Your task to perform on an android device: change text size in settings app Image 0: 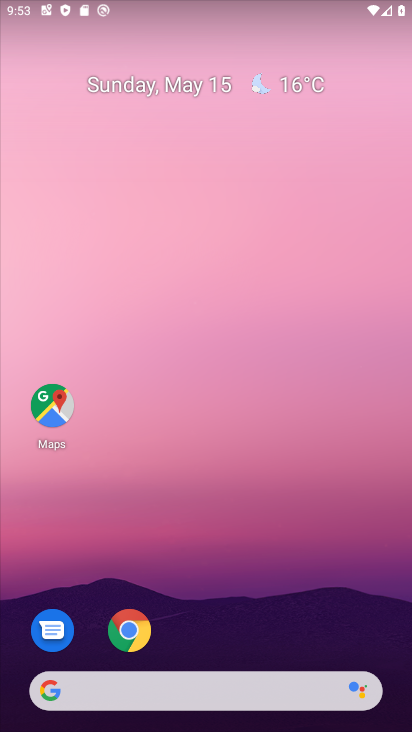
Step 0: drag from (227, 611) to (227, 141)
Your task to perform on an android device: change text size in settings app Image 1: 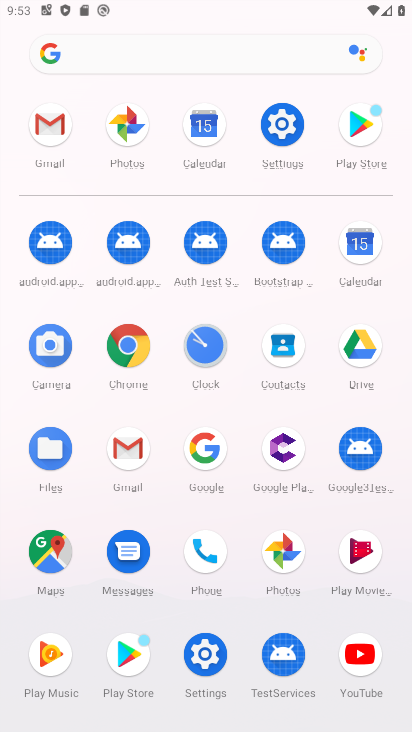
Step 1: click (275, 123)
Your task to perform on an android device: change text size in settings app Image 2: 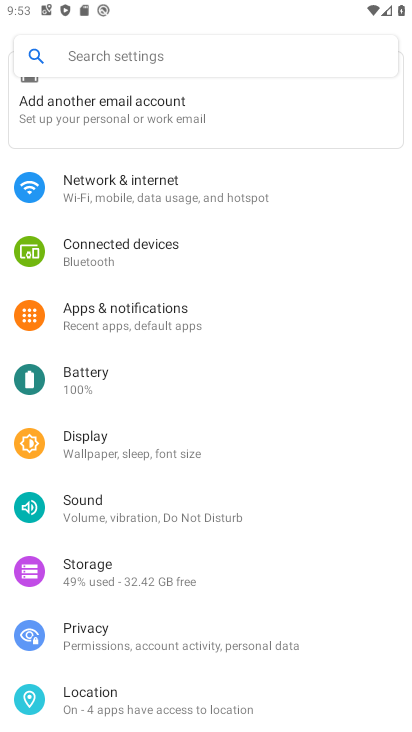
Step 2: click (130, 436)
Your task to perform on an android device: change text size in settings app Image 3: 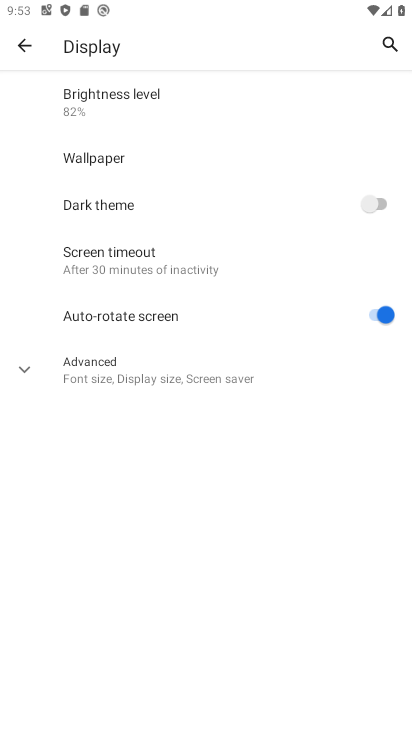
Step 3: click (113, 377)
Your task to perform on an android device: change text size in settings app Image 4: 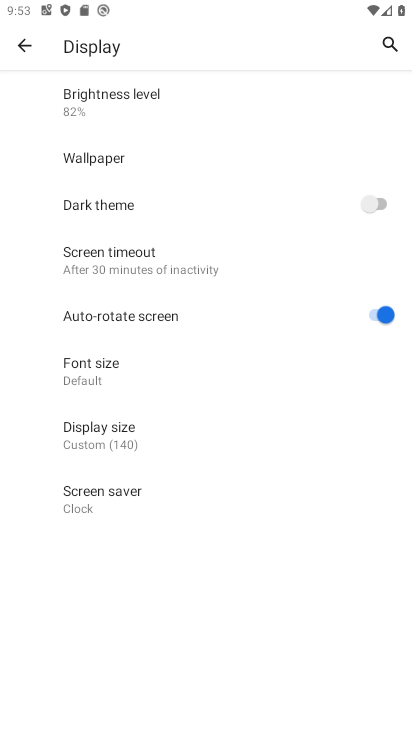
Step 4: click (102, 380)
Your task to perform on an android device: change text size in settings app Image 5: 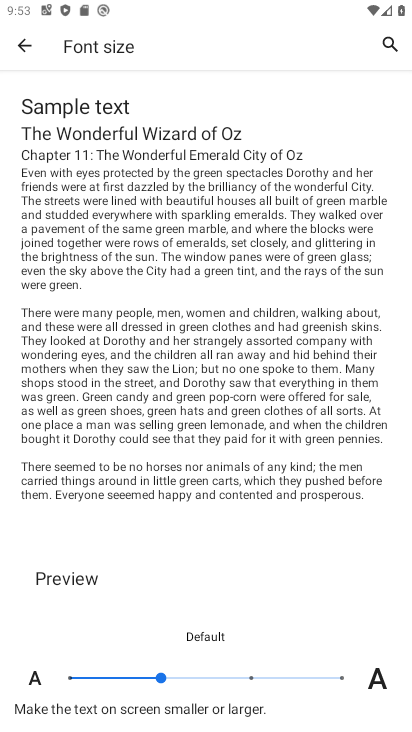
Step 5: click (73, 685)
Your task to perform on an android device: change text size in settings app Image 6: 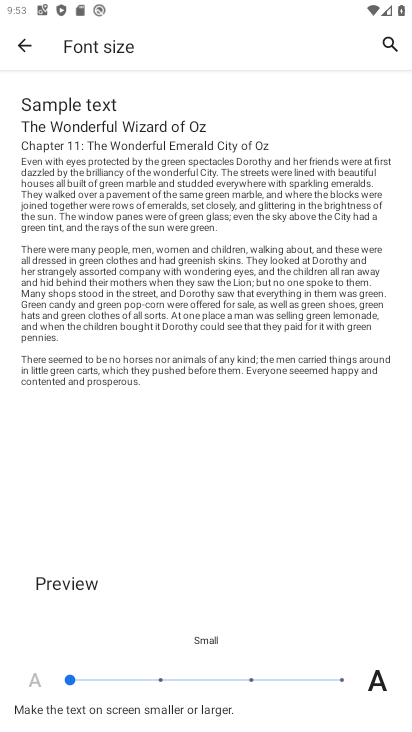
Step 6: task complete